Your task to perform on an android device: read, delete, or share a saved page in the chrome app Image 0: 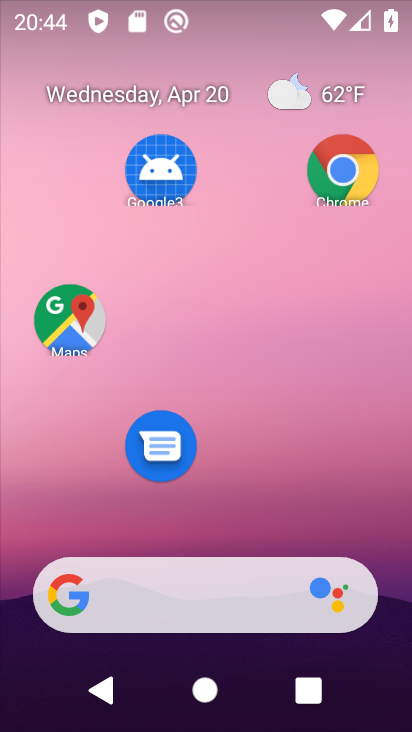
Step 0: click (347, 162)
Your task to perform on an android device: read, delete, or share a saved page in the chrome app Image 1: 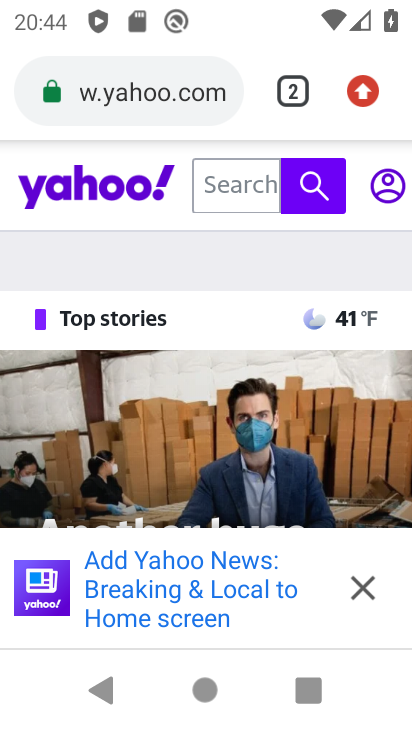
Step 1: click (363, 89)
Your task to perform on an android device: read, delete, or share a saved page in the chrome app Image 2: 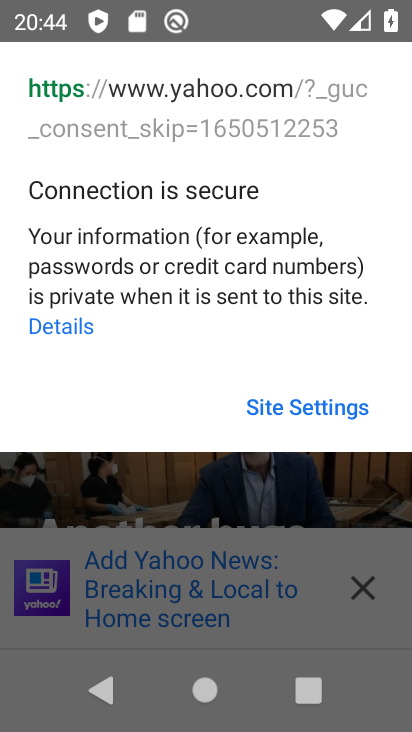
Step 2: click (322, 403)
Your task to perform on an android device: read, delete, or share a saved page in the chrome app Image 3: 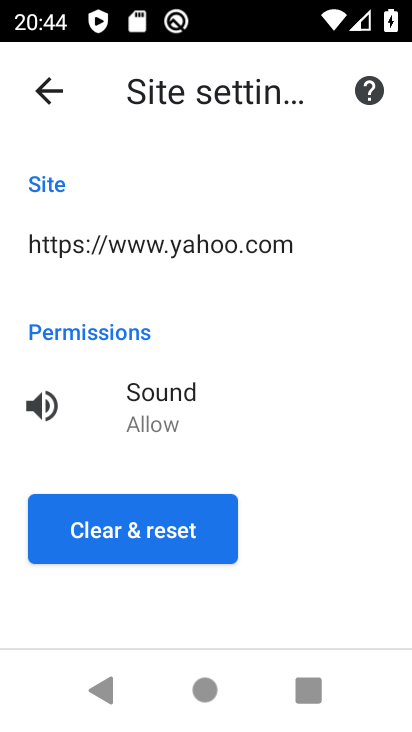
Step 3: click (52, 82)
Your task to perform on an android device: read, delete, or share a saved page in the chrome app Image 4: 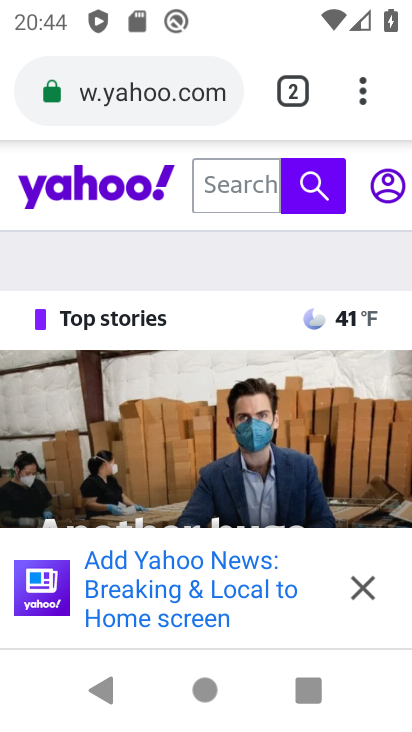
Step 4: click (365, 89)
Your task to perform on an android device: read, delete, or share a saved page in the chrome app Image 5: 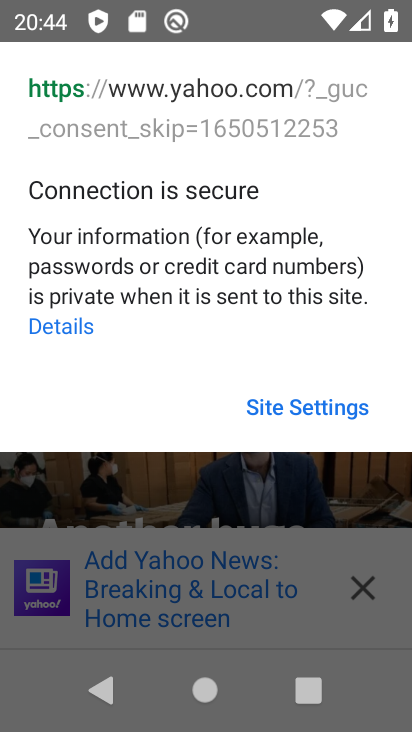
Step 5: click (300, 477)
Your task to perform on an android device: read, delete, or share a saved page in the chrome app Image 6: 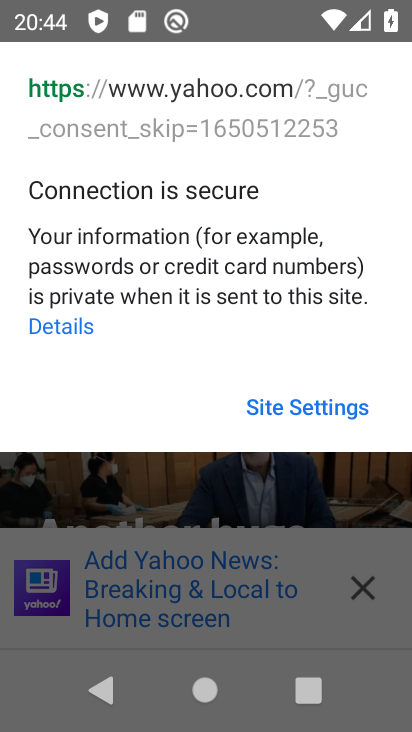
Step 6: click (253, 473)
Your task to perform on an android device: read, delete, or share a saved page in the chrome app Image 7: 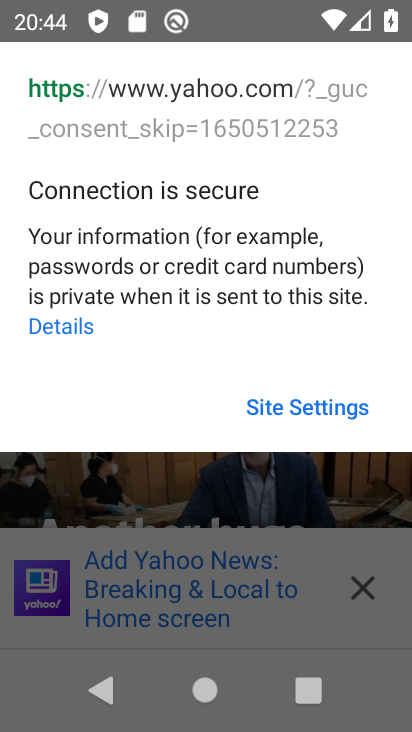
Step 7: click (253, 473)
Your task to perform on an android device: read, delete, or share a saved page in the chrome app Image 8: 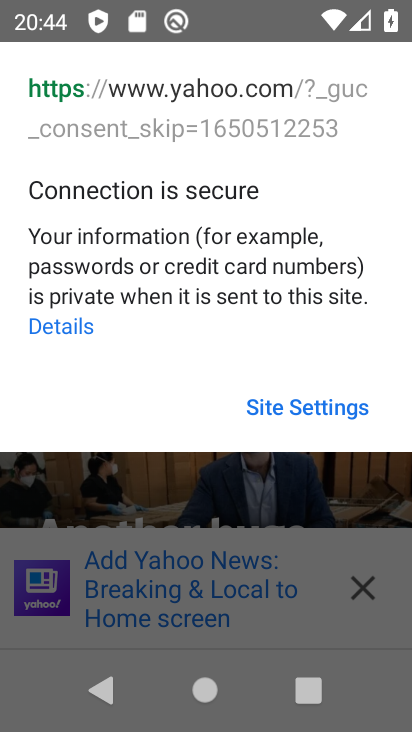
Step 8: press back button
Your task to perform on an android device: read, delete, or share a saved page in the chrome app Image 9: 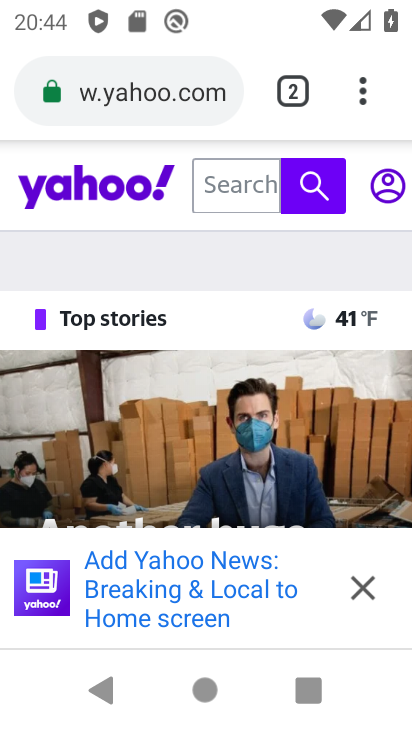
Step 9: click (357, 87)
Your task to perform on an android device: read, delete, or share a saved page in the chrome app Image 10: 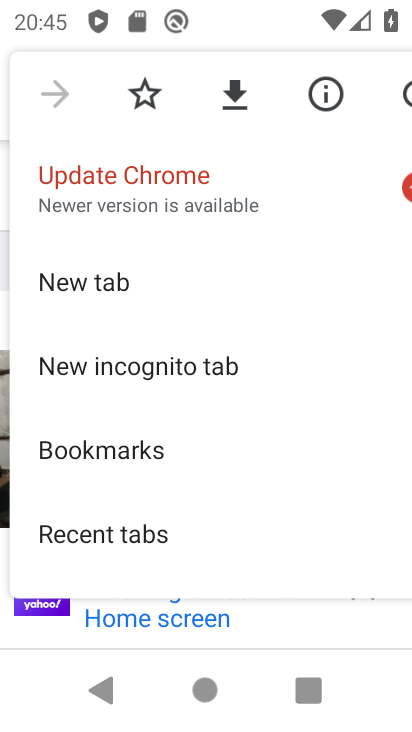
Step 10: task complete